Your task to perform on an android device: Do I have any events this weekend? Image 0: 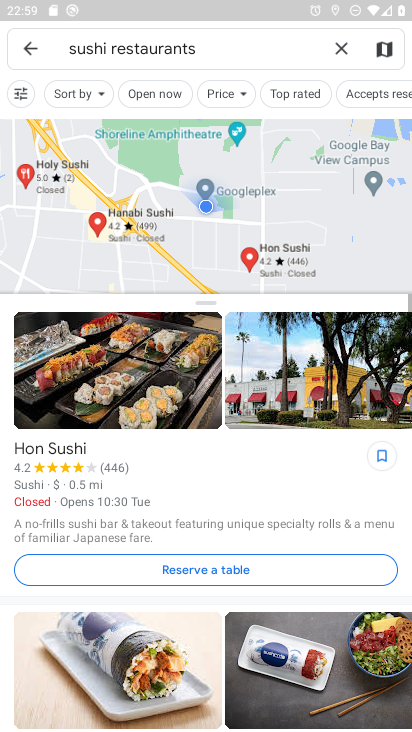
Step 0: press home button
Your task to perform on an android device: Do I have any events this weekend? Image 1: 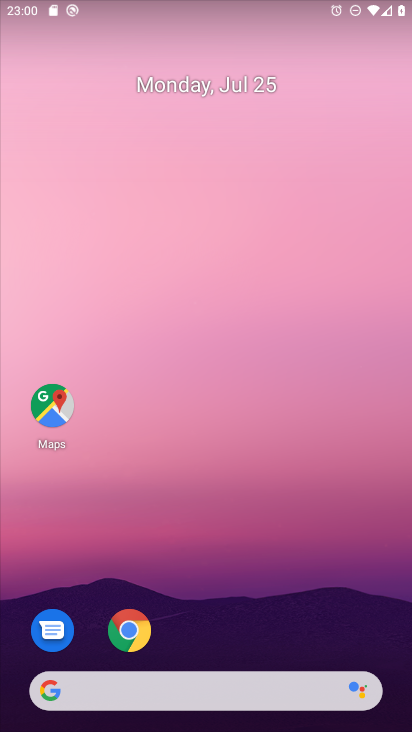
Step 1: drag from (327, 572) to (232, 6)
Your task to perform on an android device: Do I have any events this weekend? Image 2: 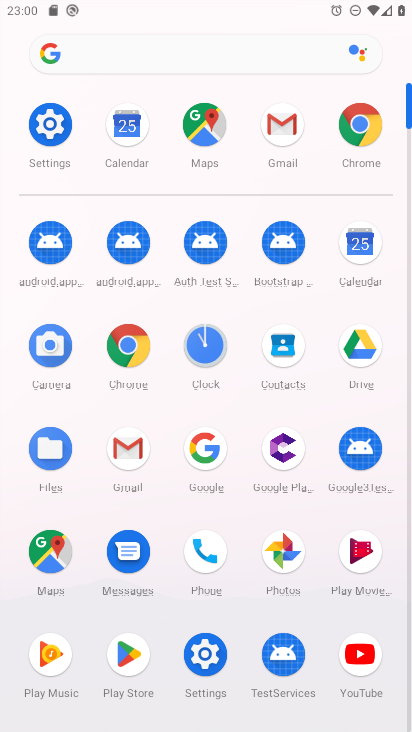
Step 2: click (367, 242)
Your task to perform on an android device: Do I have any events this weekend? Image 3: 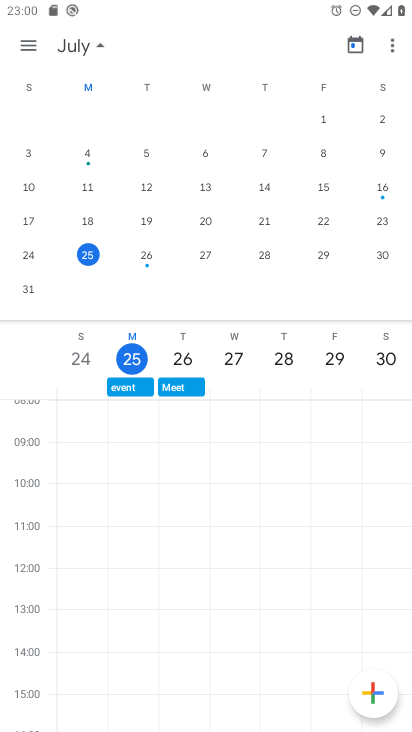
Step 3: click (95, 43)
Your task to perform on an android device: Do I have any events this weekend? Image 4: 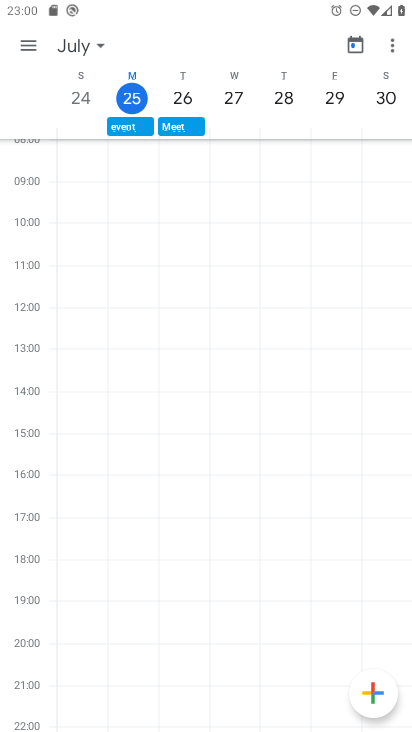
Step 4: click (382, 98)
Your task to perform on an android device: Do I have any events this weekend? Image 5: 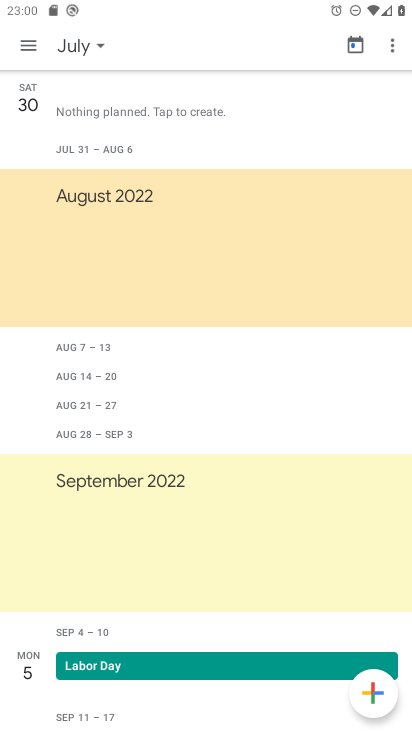
Step 5: click (31, 42)
Your task to perform on an android device: Do I have any events this weekend? Image 6: 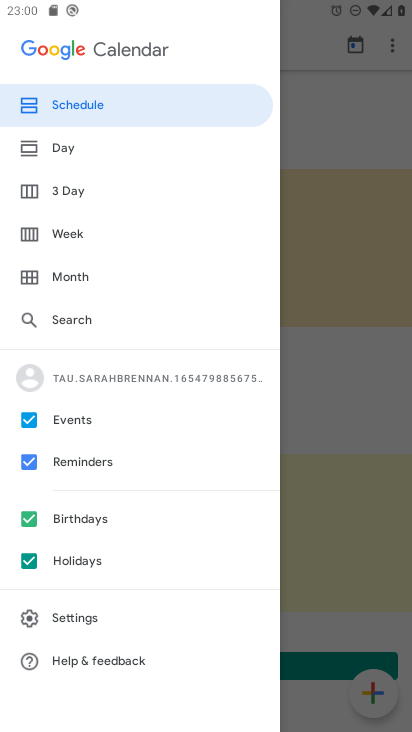
Step 6: click (61, 202)
Your task to perform on an android device: Do I have any events this weekend? Image 7: 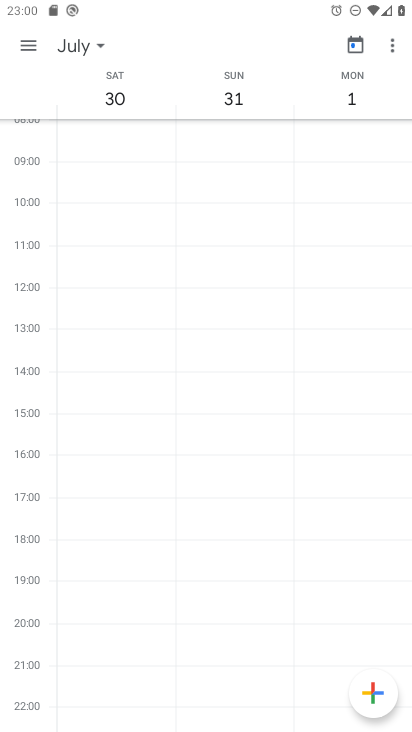
Step 7: task complete